Your task to perform on an android device: Open my contact list Image 0: 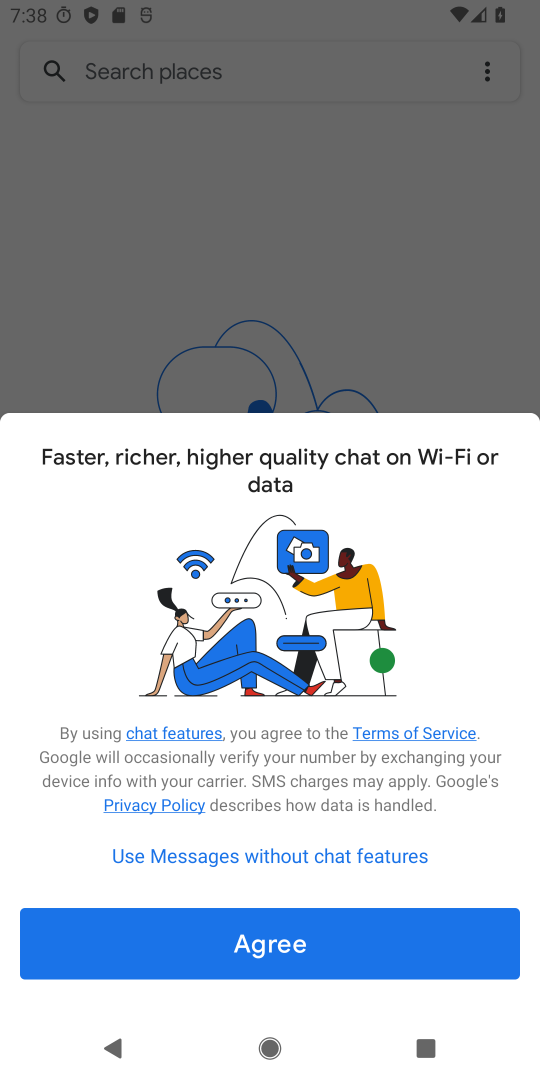
Step 0: press home button
Your task to perform on an android device: Open my contact list Image 1: 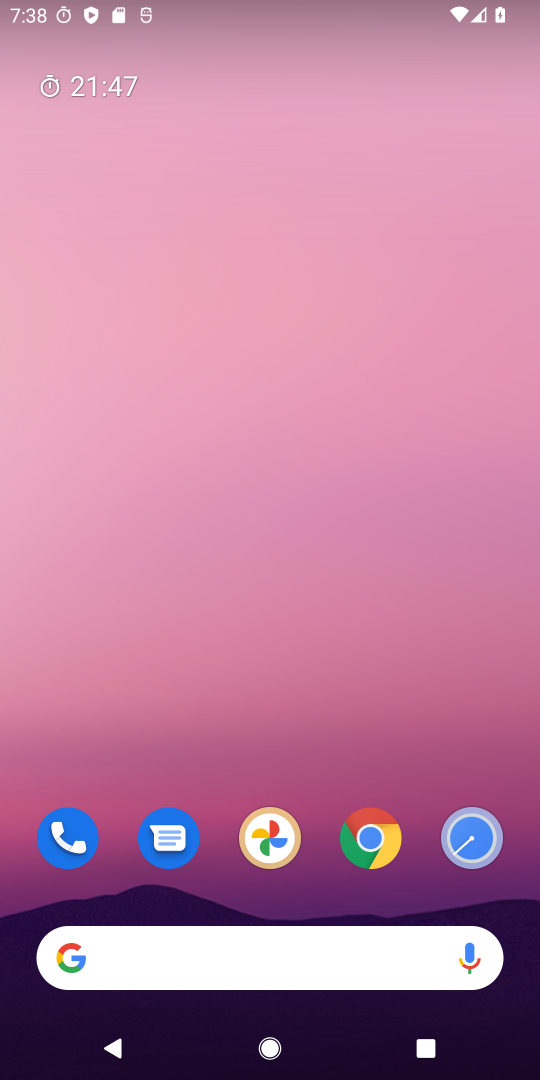
Step 1: drag from (380, 856) to (420, 56)
Your task to perform on an android device: Open my contact list Image 2: 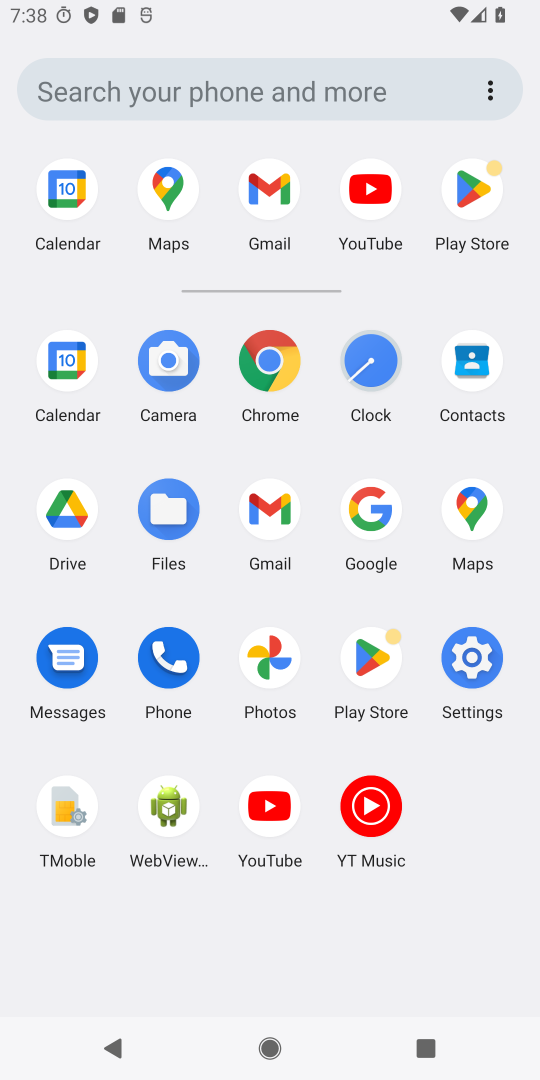
Step 2: click (483, 353)
Your task to perform on an android device: Open my contact list Image 3: 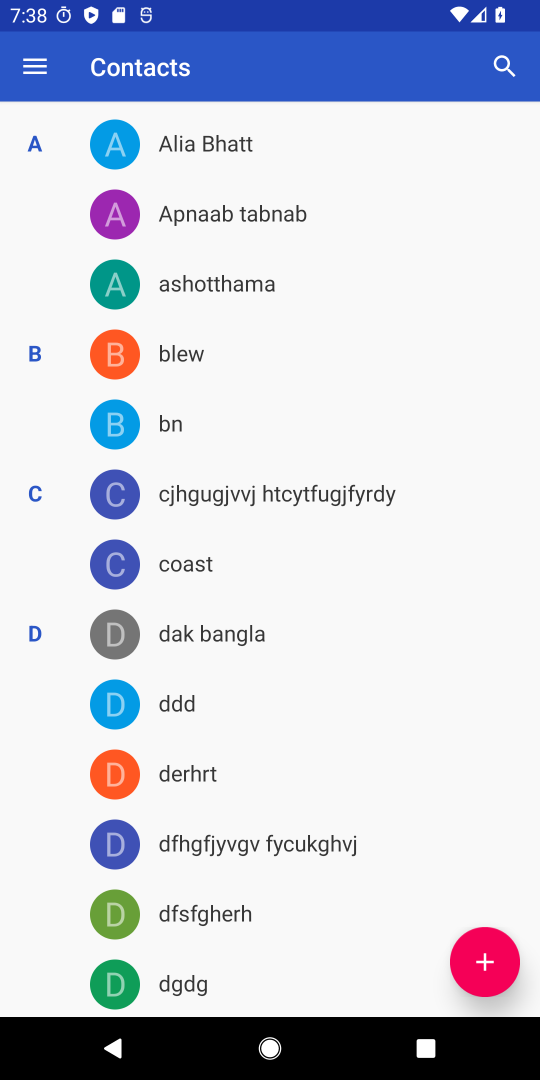
Step 3: task complete